Your task to perform on an android device: Open Wikipedia Image 0: 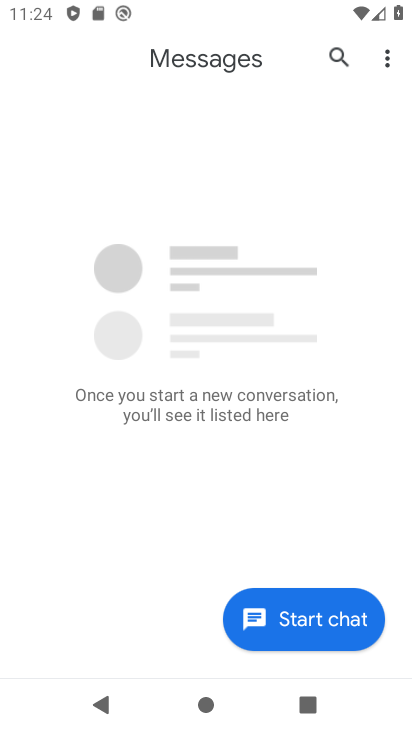
Step 0: press home button
Your task to perform on an android device: Open Wikipedia Image 1: 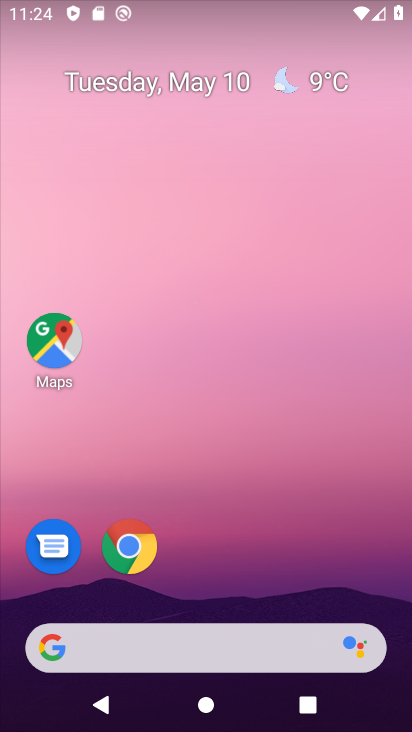
Step 1: click (169, 633)
Your task to perform on an android device: Open Wikipedia Image 2: 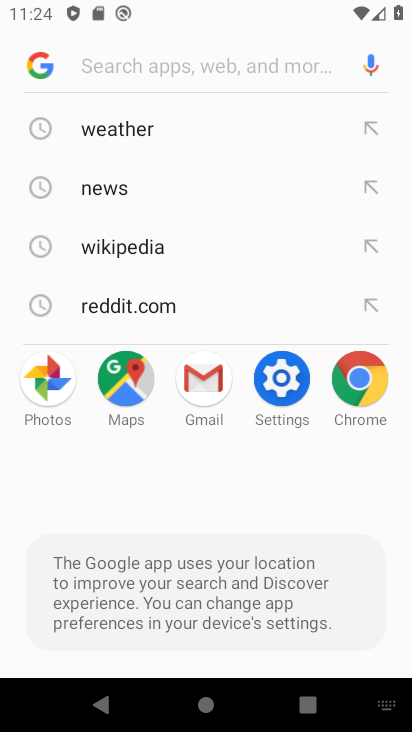
Step 2: click (142, 248)
Your task to perform on an android device: Open Wikipedia Image 3: 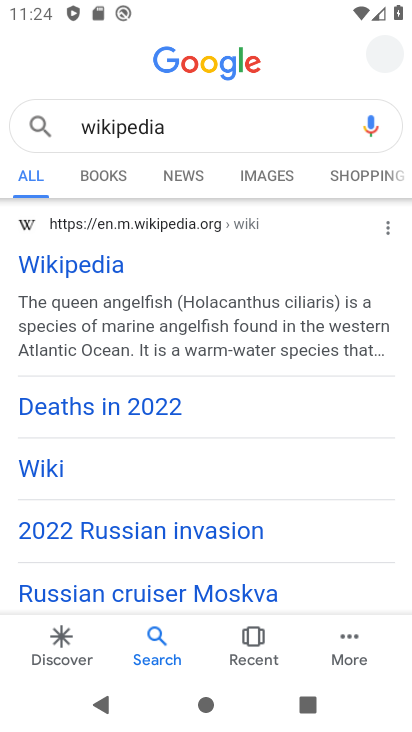
Step 3: click (103, 208)
Your task to perform on an android device: Open Wikipedia Image 4: 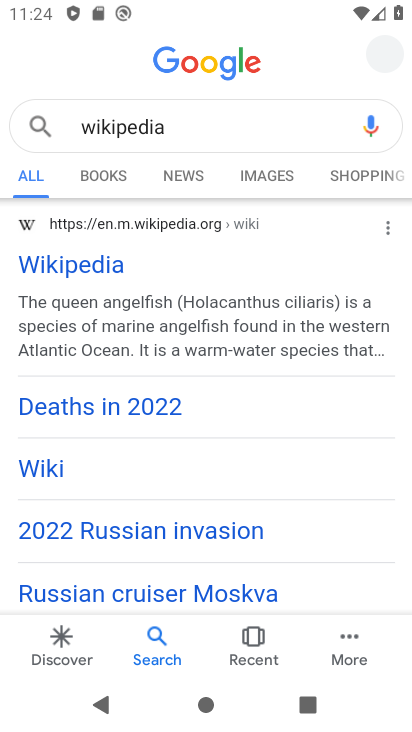
Step 4: click (89, 258)
Your task to perform on an android device: Open Wikipedia Image 5: 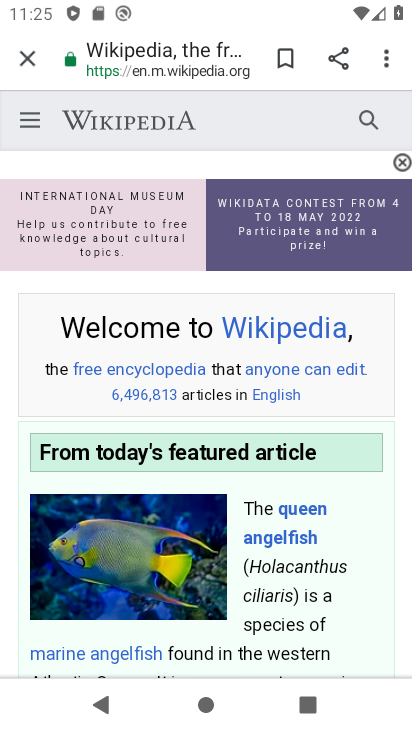
Step 5: task complete